Your task to perform on an android device: Show me productivity apps on the Play Store Image 0: 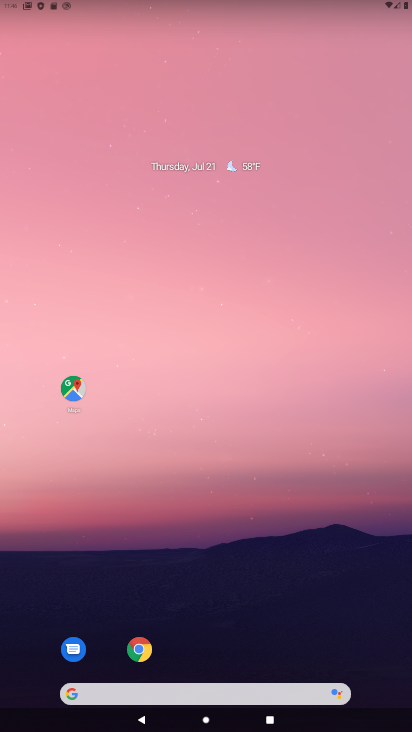
Step 0: drag from (190, 653) to (218, 121)
Your task to perform on an android device: Show me productivity apps on the Play Store Image 1: 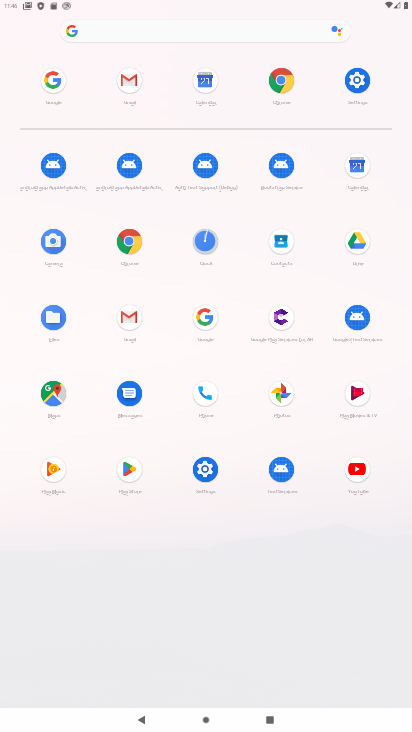
Step 1: click (127, 466)
Your task to perform on an android device: Show me productivity apps on the Play Store Image 2: 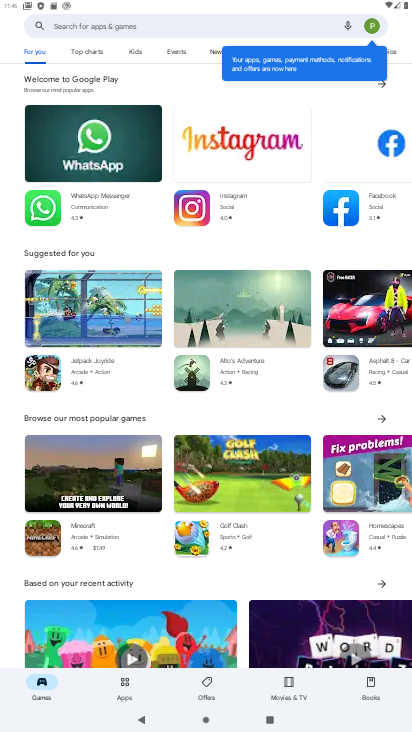
Step 2: click (132, 686)
Your task to perform on an android device: Show me productivity apps on the Play Store Image 3: 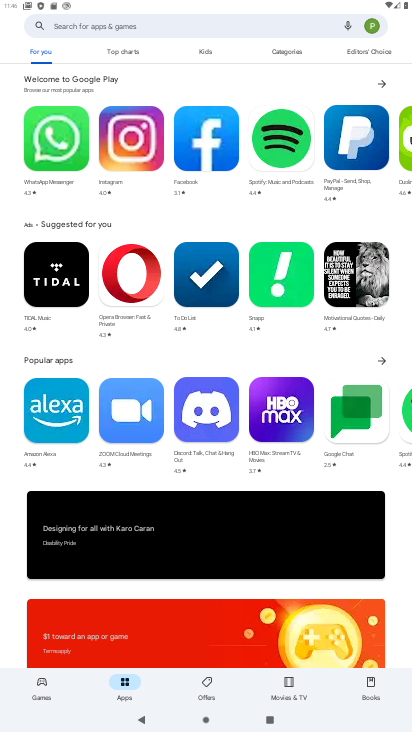
Step 3: click (280, 50)
Your task to perform on an android device: Show me productivity apps on the Play Store Image 4: 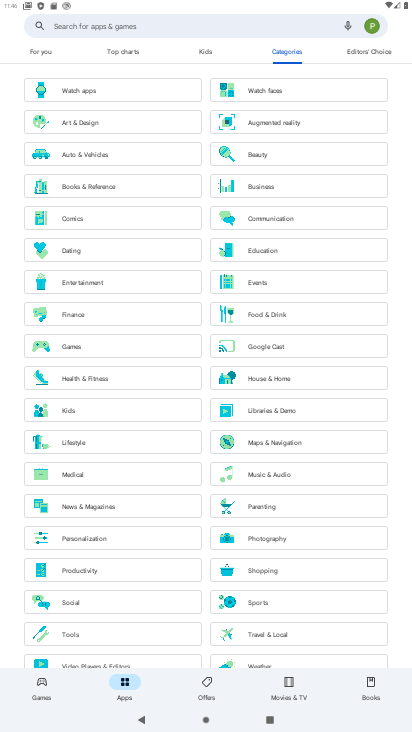
Step 4: click (76, 579)
Your task to perform on an android device: Show me productivity apps on the Play Store Image 5: 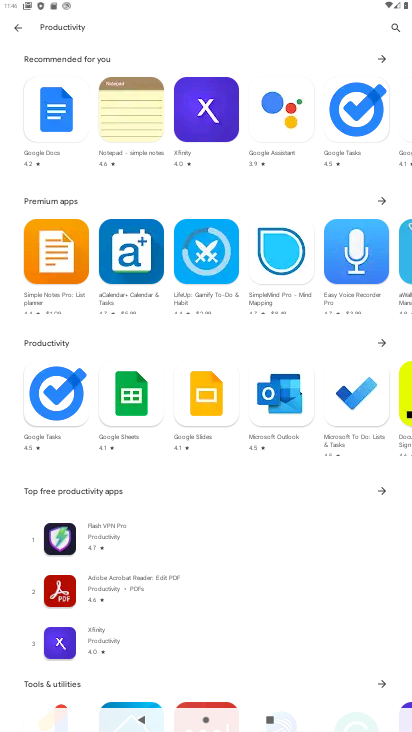
Step 5: task complete